Your task to perform on an android device: Add logitech g910 to the cart on costco, then select checkout. Image 0: 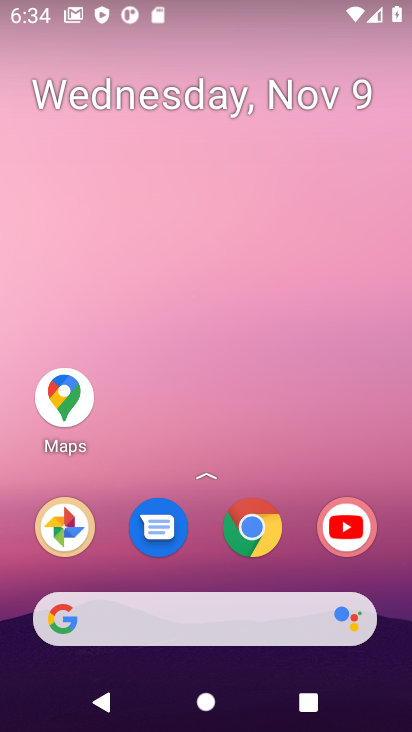
Step 0: click (265, 534)
Your task to perform on an android device: Add logitech g910 to the cart on costco, then select checkout. Image 1: 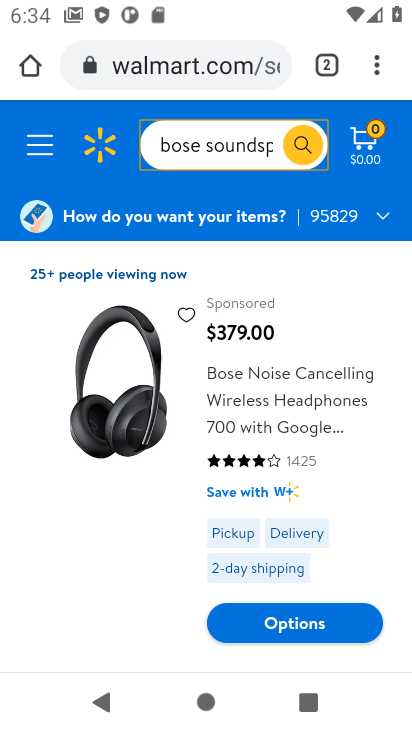
Step 1: click (180, 65)
Your task to perform on an android device: Add logitech g910 to the cart on costco, then select checkout. Image 2: 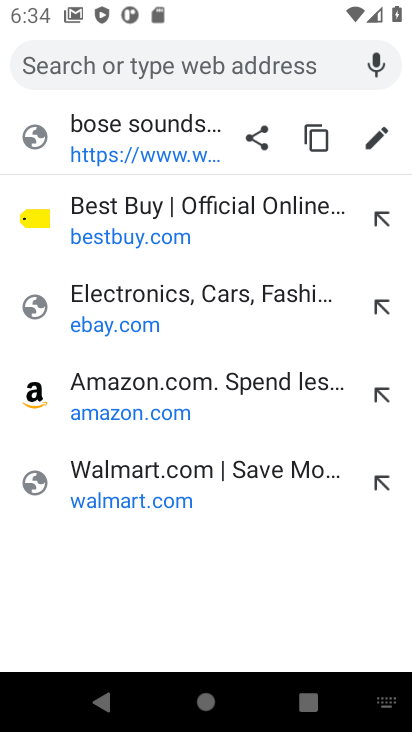
Step 2: type "costco.com"
Your task to perform on an android device: Add logitech g910 to the cart on costco, then select checkout. Image 3: 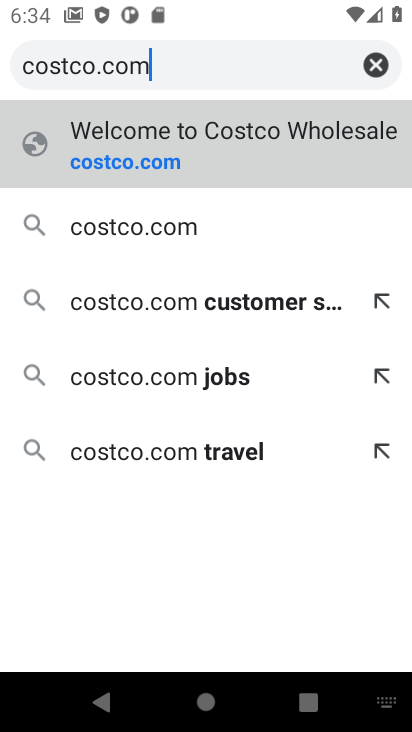
Step 3: click (132, 156)
Your task to perform on an android device: Add logitech g910 to the cart on costco, then select checkout. Image 4: 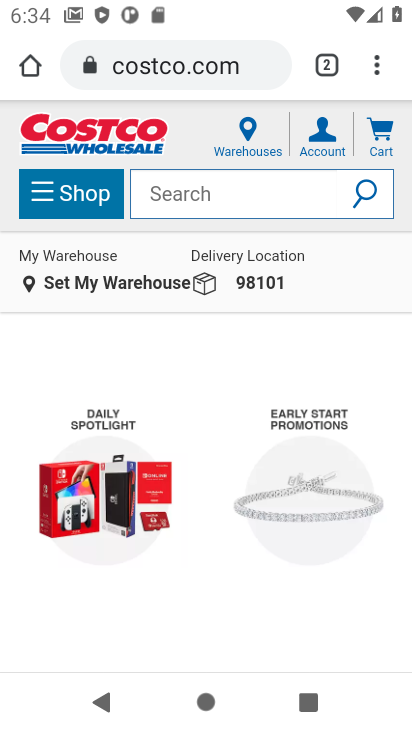
Step 4: click (222, 178)
Your task to perform on an android device: Add logitech g910 to the cart on costco, then select checkout. Image 5: 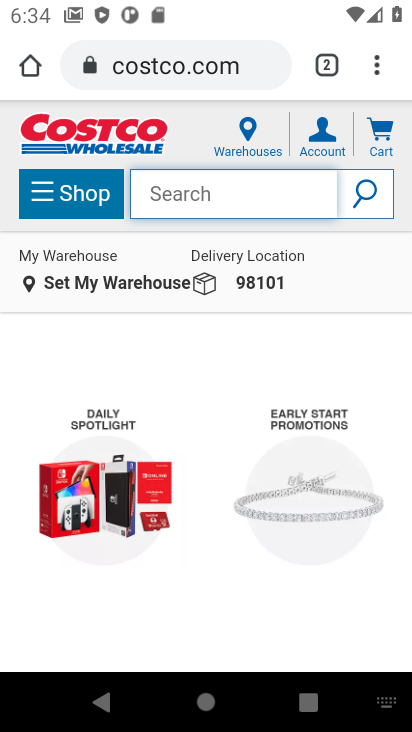
Step 5: type "logitech g910 "
Your task to perform on an android device: Add logitech g910 to the cart on costco, then select checkout. Image 6: 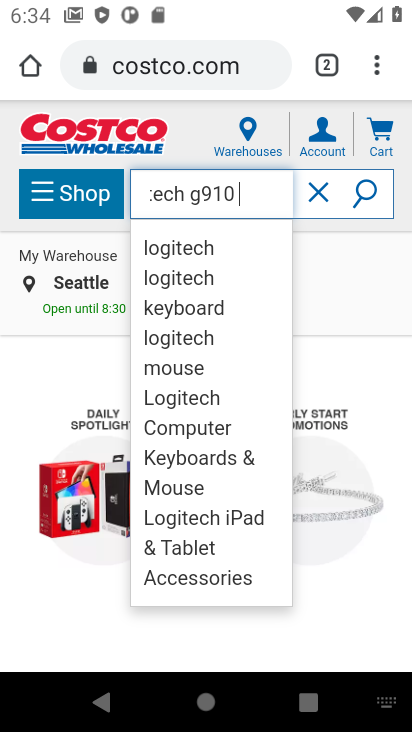
Step 6: click (363, 198)
Your task to perform on an android device: Add logitech g910 to the cart on costco, then select checkout. Image 7: 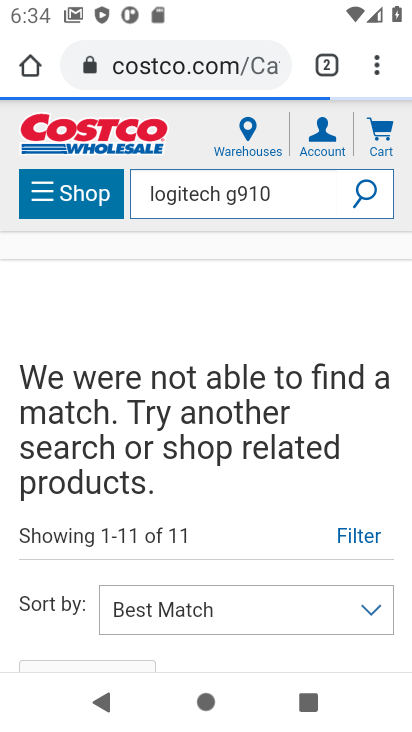
Step 7: task complete